Your task to perform on an android device: delete browsing data in the chrome app Image 0: 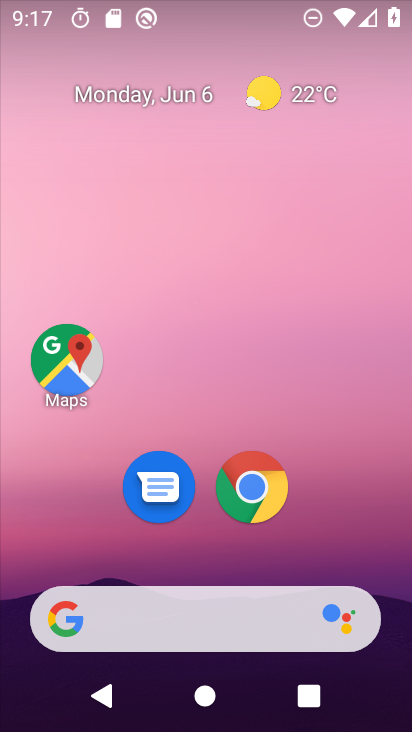
Step 0: drag from (396, 624) to (299, 25)
Your task to perform on an android device: delete browsing data in the chrome app Image 1: 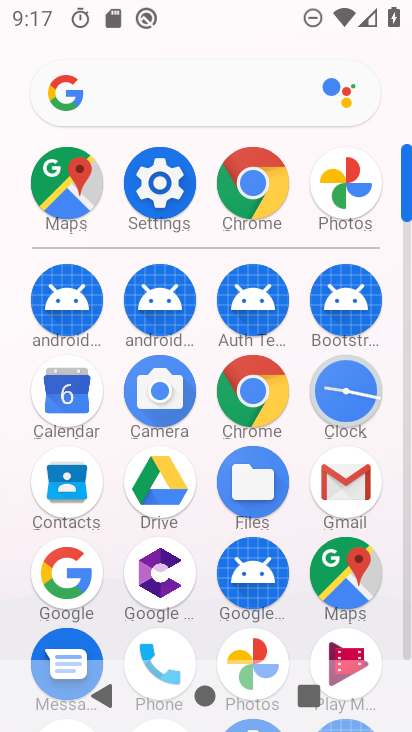
Step 1: click (268, 386)
Your task to perform on an android device: delete browsing data in the chrome app Image 2: 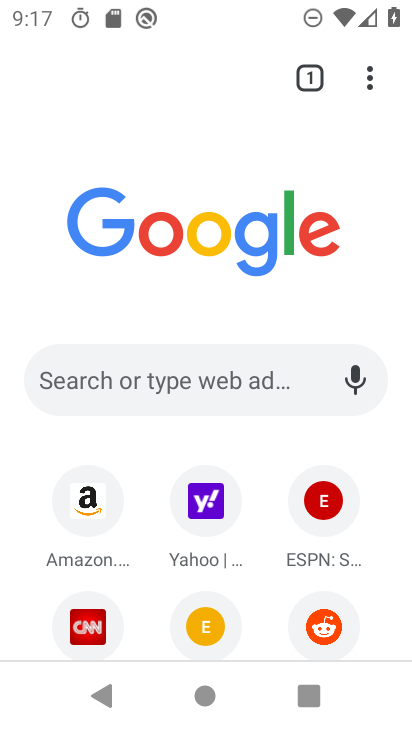
Step 2: click (365, 69)
Your task to perform on an android device: delete browsing data in the chrome app Image 3: 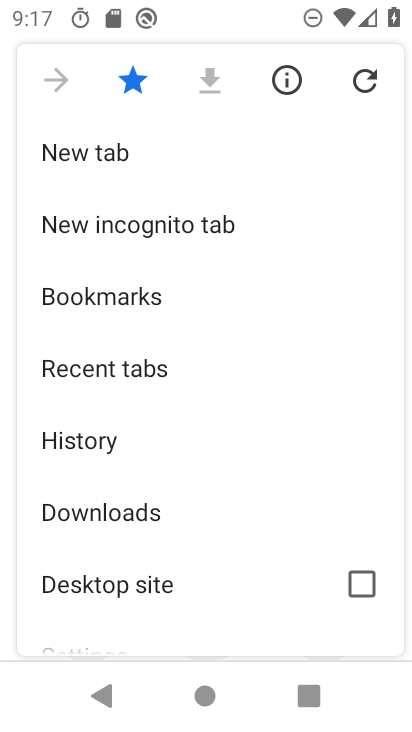
Step 3: click (119, 452)
Your task to perform on an android device: delete browsing data in the chrome app Image 4: 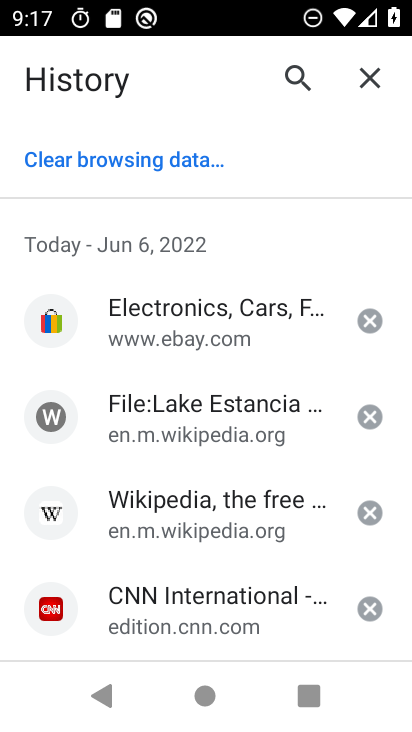
Step 4: click (150, 156)
Your task to perform on an android device: delete browsing data in the chrome app Image 5: 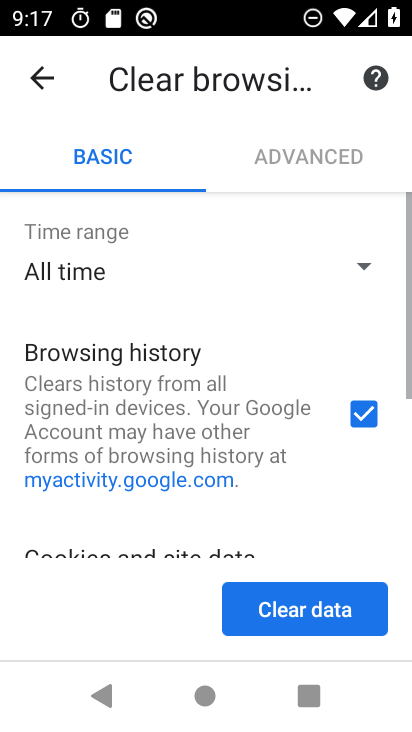
Step 5: click (352, 602)
Your task to perform on an android device: delete browsing data in the chrome app Image 6: 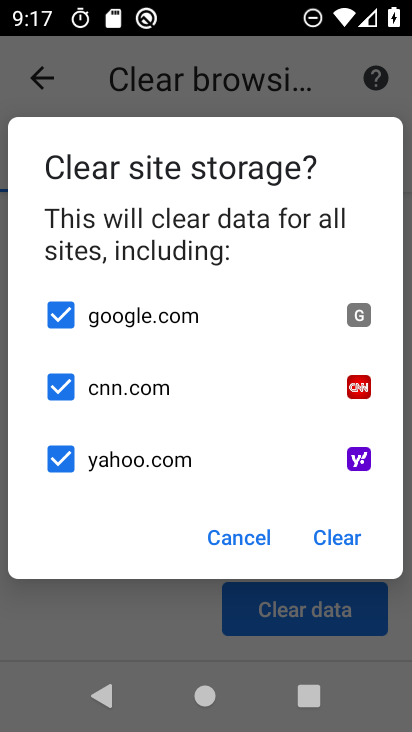
Step 6: click (342, 523)
Your task to perform on an android device: delete browsing data in the chrome app Image 7: 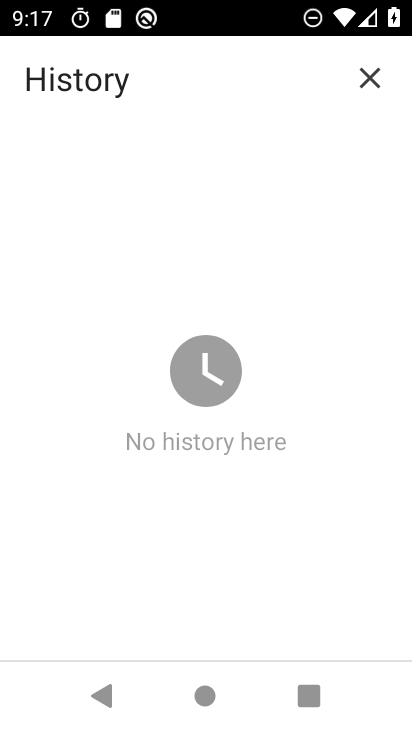
Step 7: task complete